Your task to perform on an android device: change the clock display to show seconds Image 0: 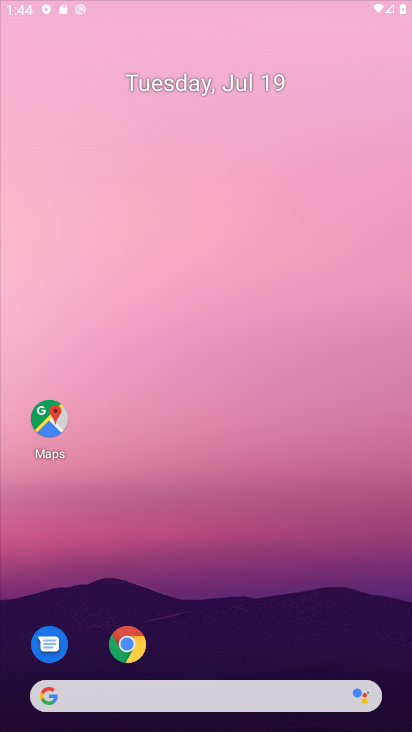
Step 0: drag from (325, 610) to (258, 153)
Your task to perform on an android device: change the clock display to show seconds Image 1: 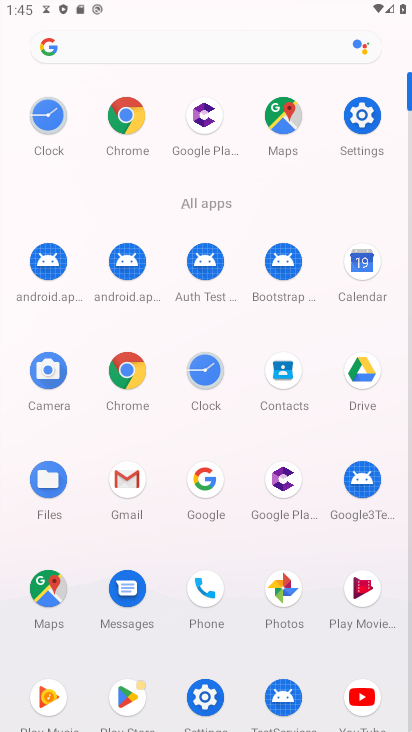
Step 1: click (205, 382)
Your task to perform on an android device: change the clock display to show seconds Image 2: 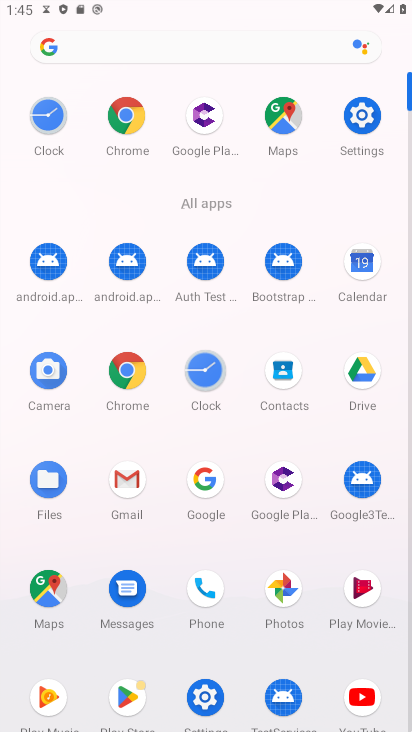
Step 2: click (203, 378)
Your task to perform on an android device: change the clock display to show seconds Image 3: 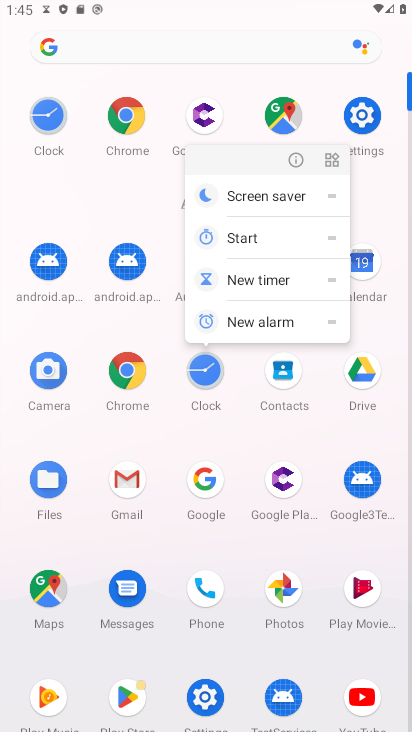
Step 3: click (199, 365)
Your task to perform on an android device: change the clock display to show seconds Image 4: 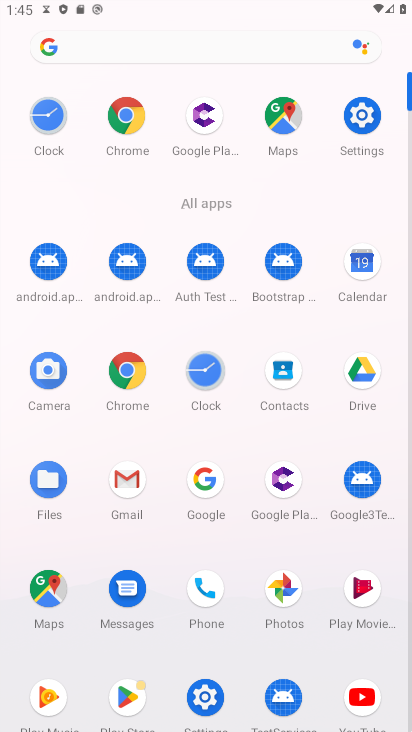
Step 4: click (201, 364)
Your task to perform on an android device: change the clock display to show seconds Image 5: 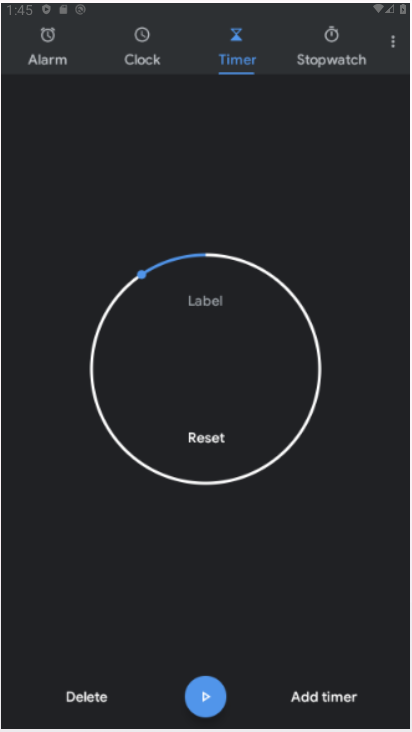
Step 5: click (201, 364)
Your task to perform on an android device: change the clock display to show seconds Image 6: 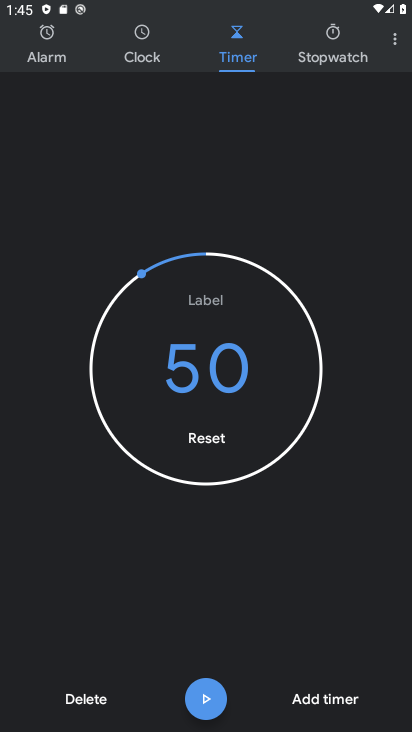
Step 6: click (202, 364)
Your task to perform on an android device: change the clock display to show seconds Image 7: 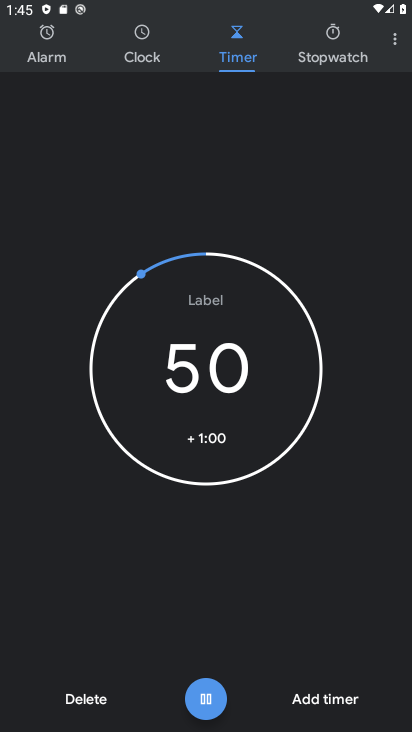
Step 7: click (204, 364)
Your task to perform on an android device: change the clock display to show seconds Image 8: 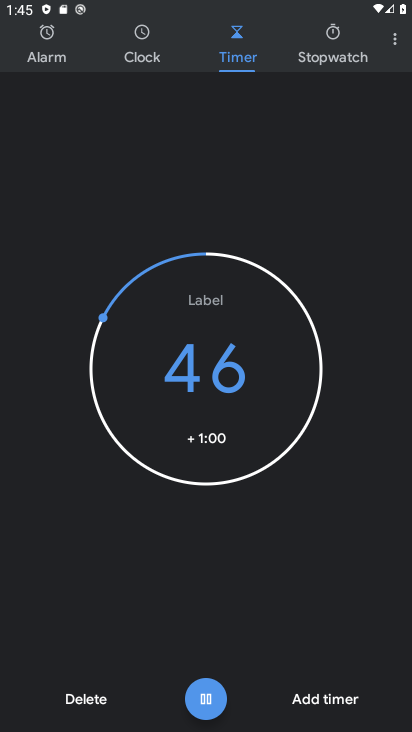
Step 8: click (193, 689)
Your task to perform on an android device: change the clock display to show seconds Image 9: 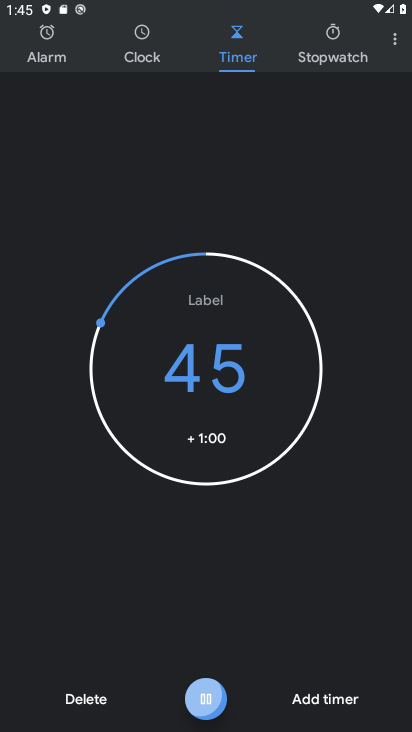
Step 9: click (193, 689)
Your task to perform on an android device: change the clock display to show seconds Image 10: 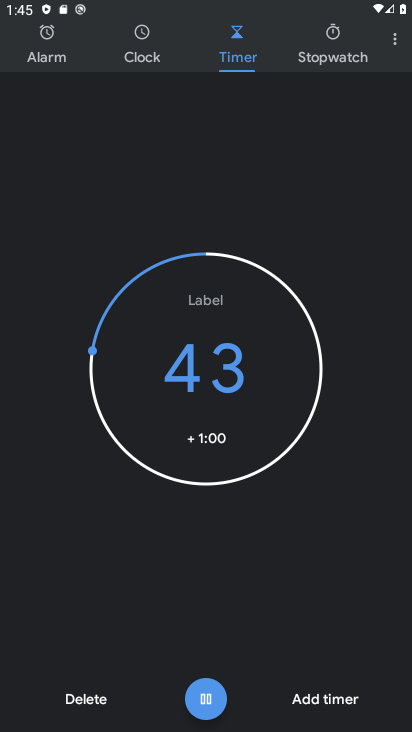
Step 10: click (206, 707)
Your task to perform on an android device: change the clock display to show seconds Image 11: 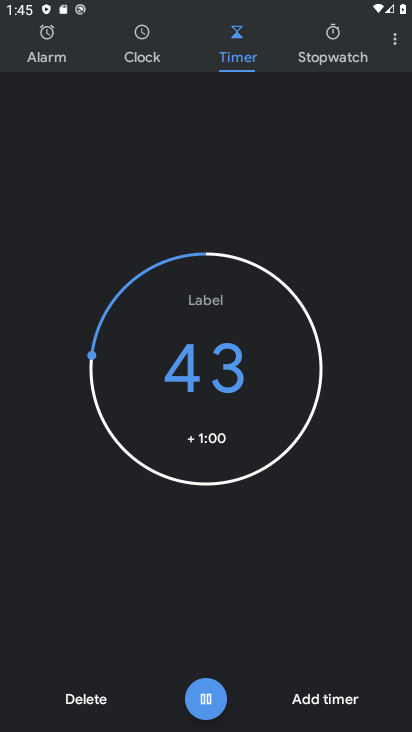
Step 11: click (206, 707)
Your task to perform on an android device: change the clock display to show seconds Image 12: 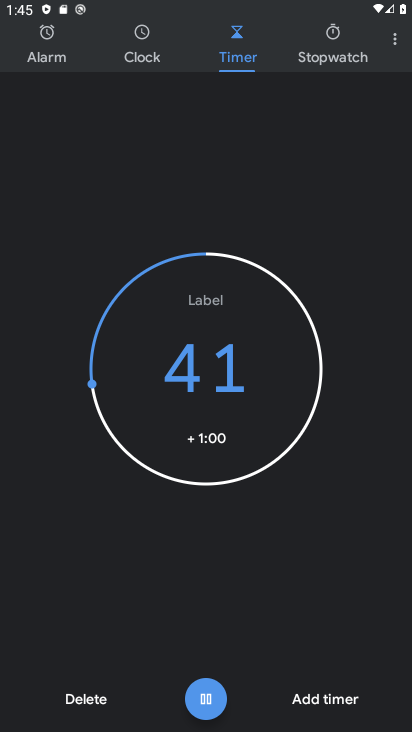
Step 12: click (204, 691)
Your task to perform on an android device: change the clock display to show seconds Image 13: 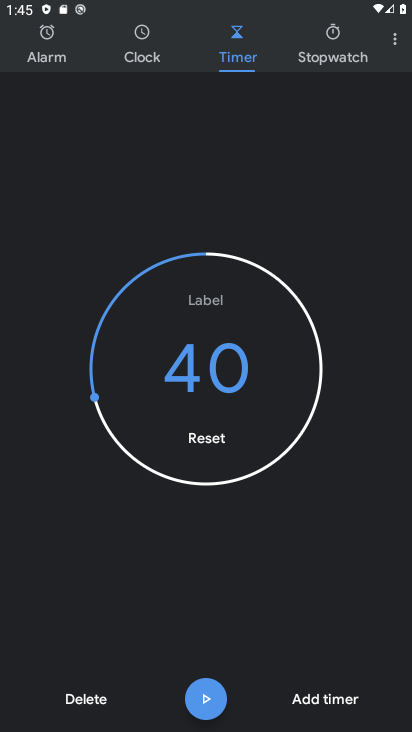
Step 13: click (204, 691)
Your task to perform on an android device: change the clock display to show seconds Image 14: 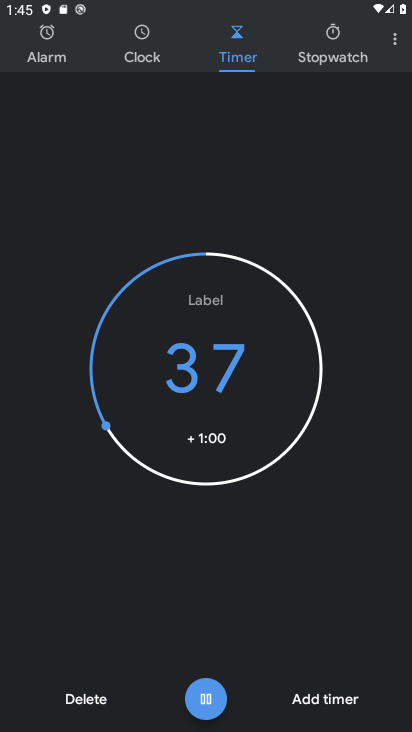
Step 14: click (207, 691)
Your task to perform on an android device: change the clock display to show seconds Image 15: 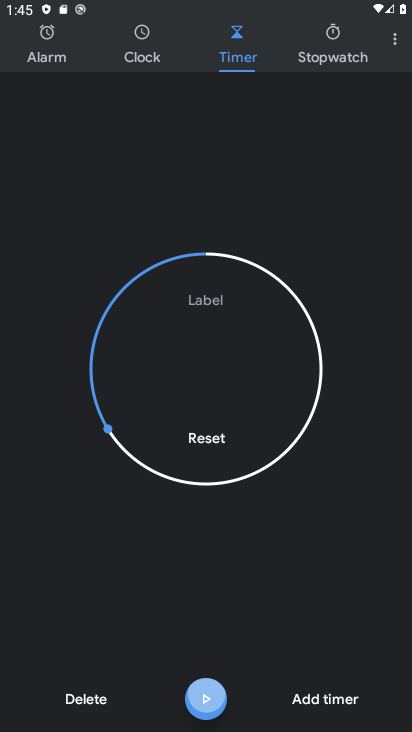
Step 15: click (207, 691)
Your task to perform on an android device: change the clock display to show seconds Image 16: 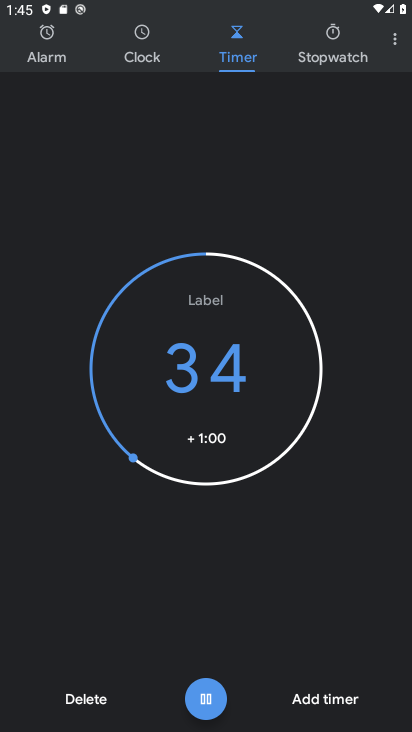
Step 16: click (208, 687)
Your task to perform on an android device: change the clock display to show seconds Image 17: 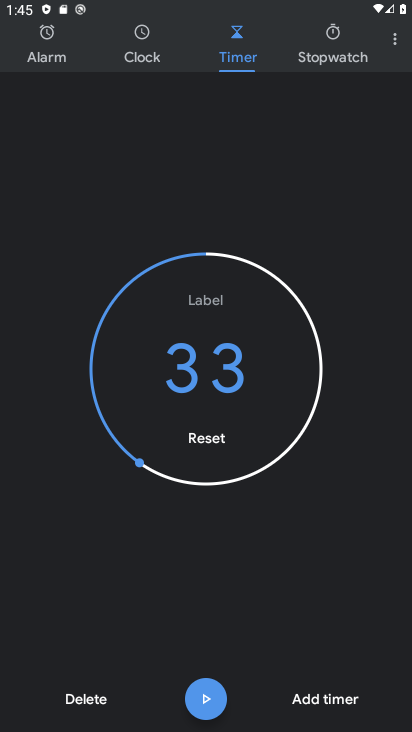
Step 17: click (395, 43)
Your task to perform on an android device: change the clock display to show seconds Image 18: 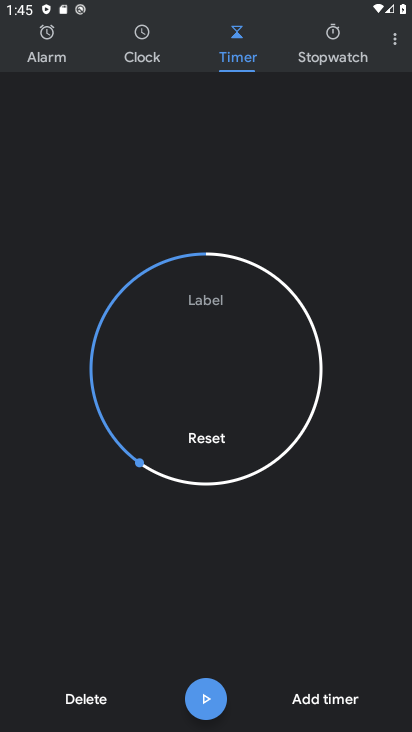
Step 18: click (395, 43)
Your task to perform on an android device: change the clock display to show seconds Image 19: 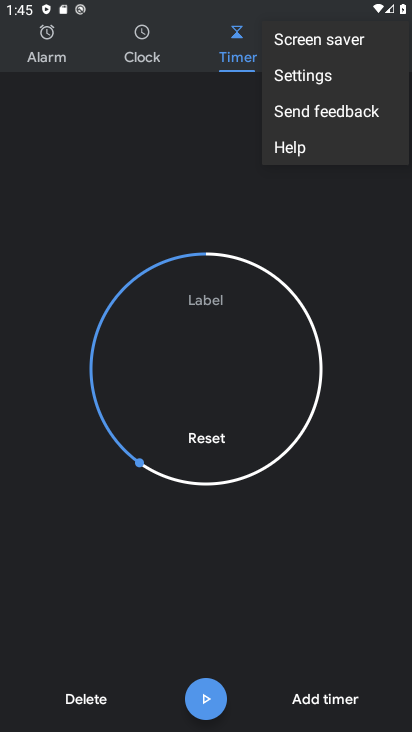
Step 19: click (314, 76)
Your task to perform on an android device: change the clock display to show seconds Image 20: 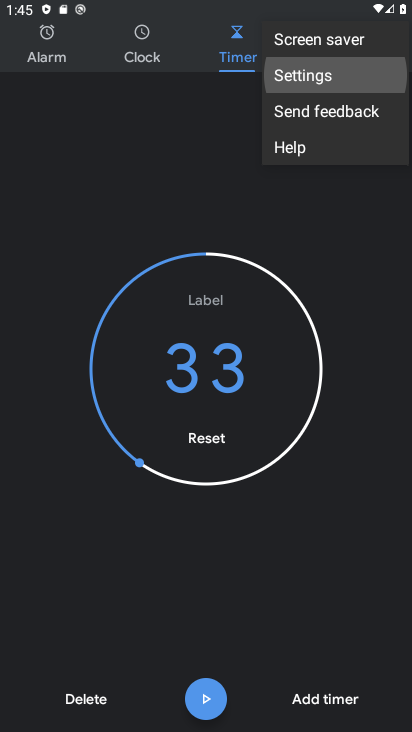
Step 20: click (314, 76)
Your task to perform on an android device: change the clock display to show seconds Image 21: 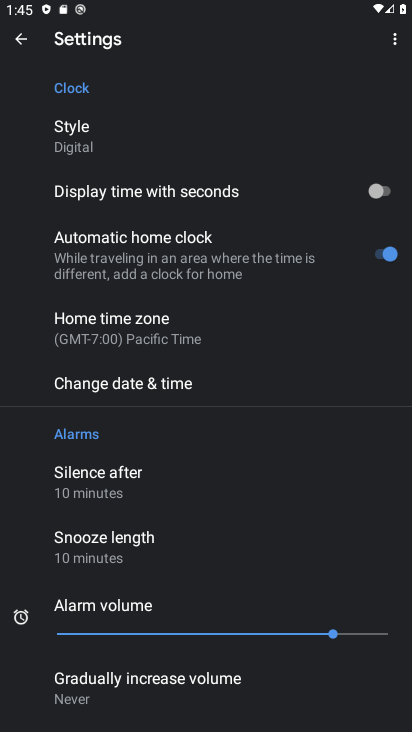
Step 21: click (103, 144)
Your task to perform on an android device: change the clock display to show seconds Image 22: 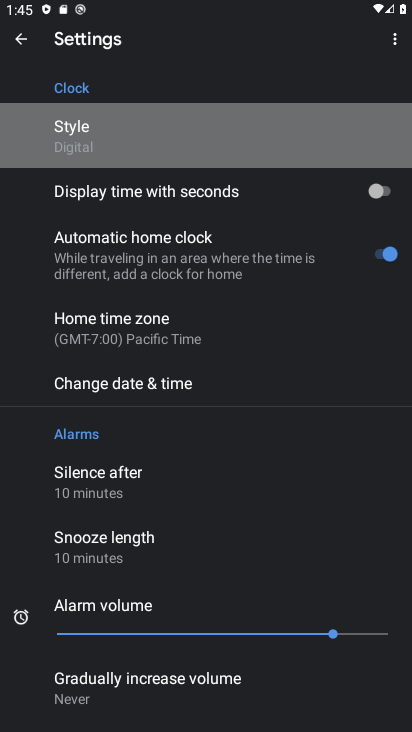
Step 22: click (103, 144)
Your task to perform on an android device: change the clock display to show seconds Image 23: 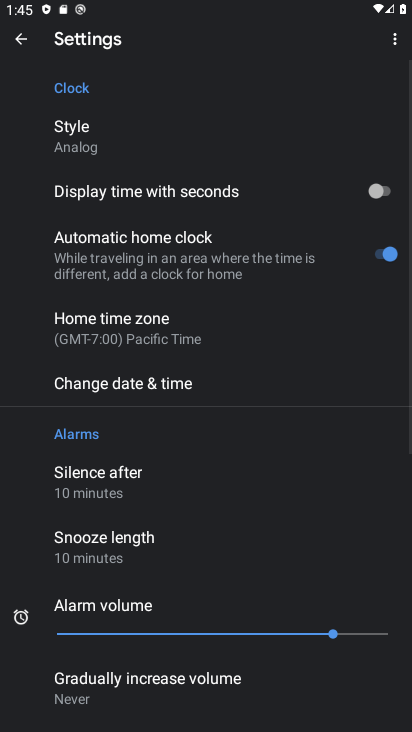
Step 23: click (379, 191)
Your task to perform on an android device: change the clock display to show seconds Image 24: 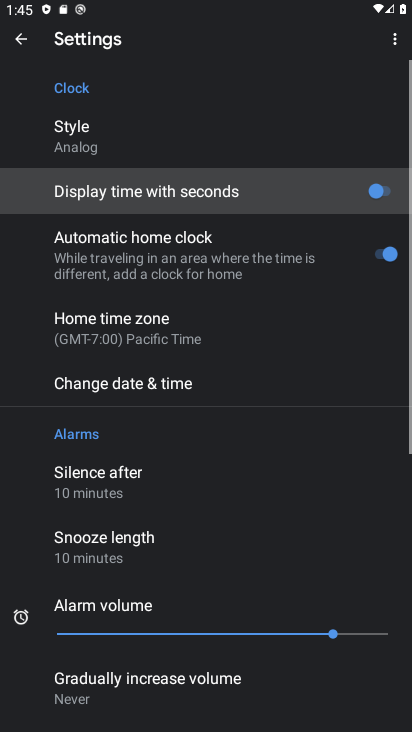
Step 24: click (380, 189)
Your task to perform on an android device: change the clock display to show seconds Image 25: 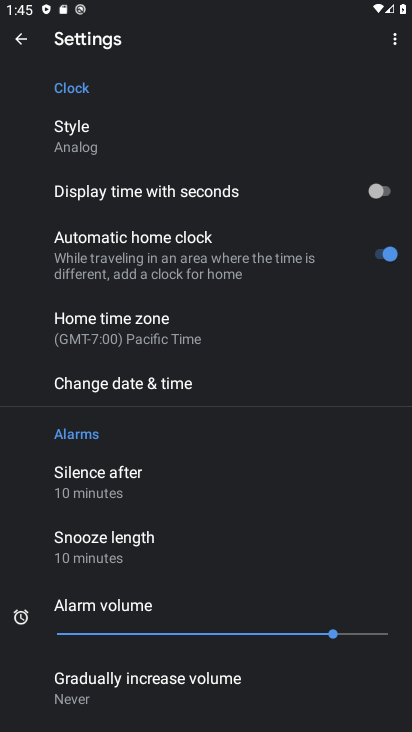
Step 25: click (372, 194)
Your task to perform on an android device: change the clock display to show seconds Image 26: 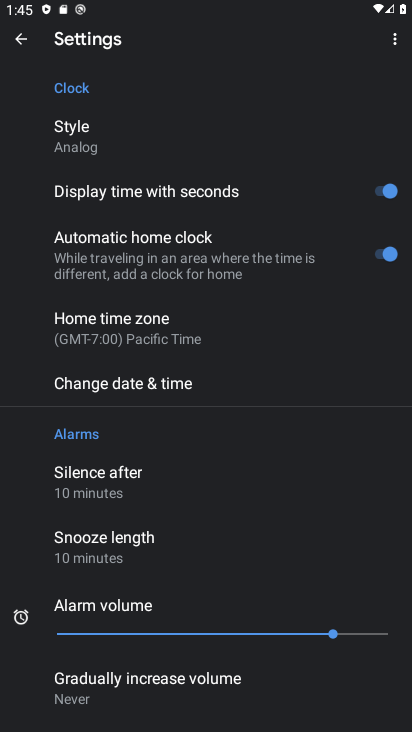
Step 26: task complete